Your task to perform on an android device: Go to wifi settings Image 0: 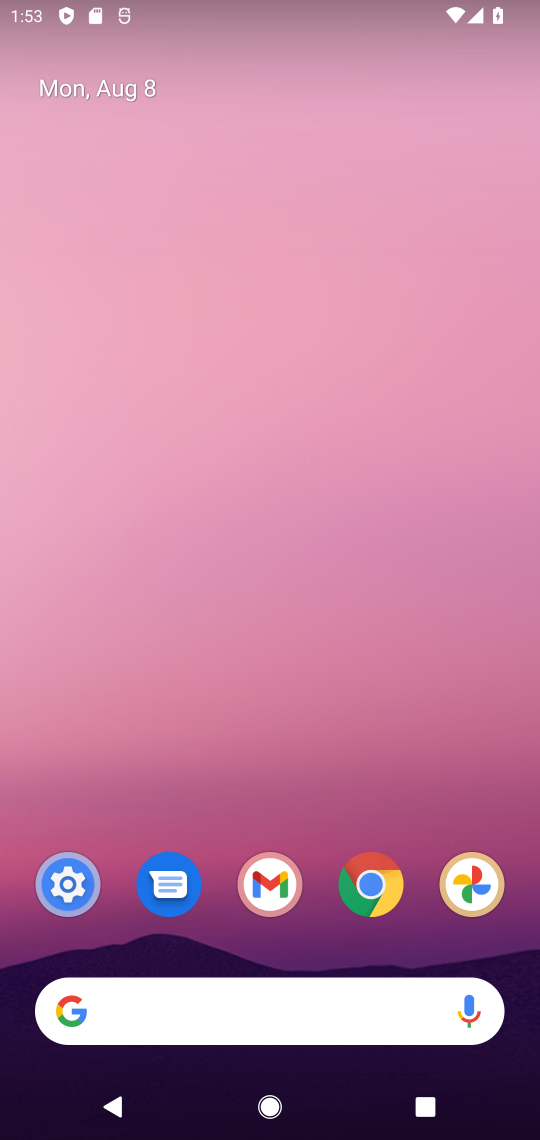
Step 0: click (69, 881)
Your task to perform on an android device: Go to wifi settings Image 1: 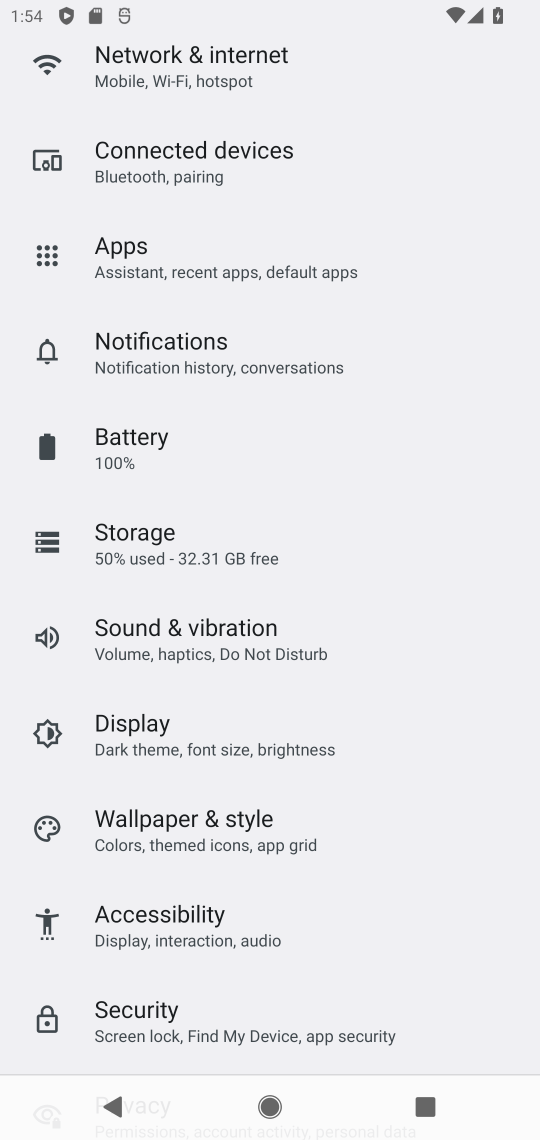
Step 1: drag from (351, 186) to (277, 499)
Your task to perform on an android device: Go to wifi settings Image 2: 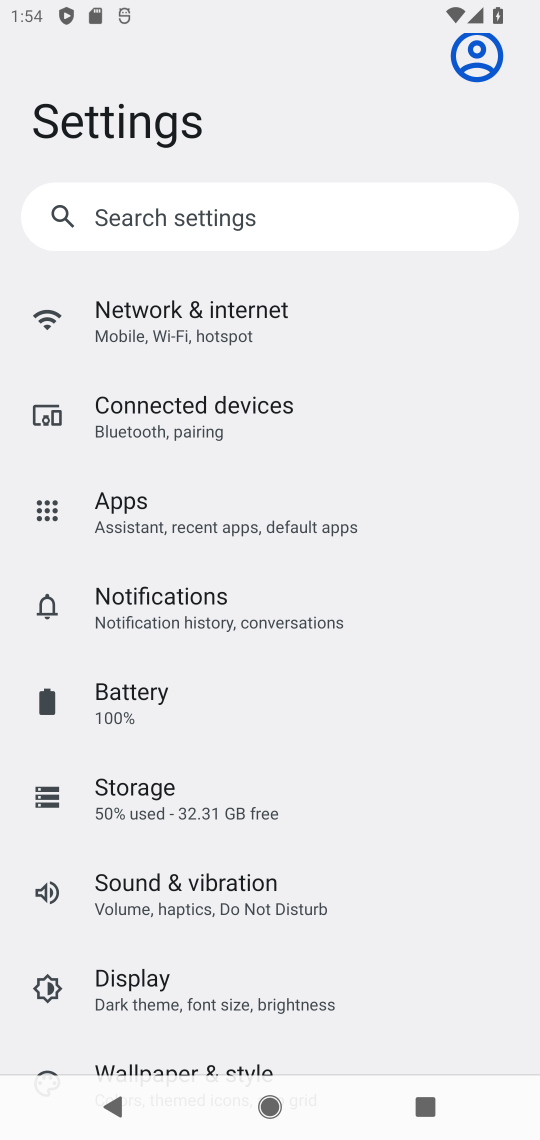
Step 2: click (159, 293)
Your task to perform on an android device: Go to wifi settings Image 3: 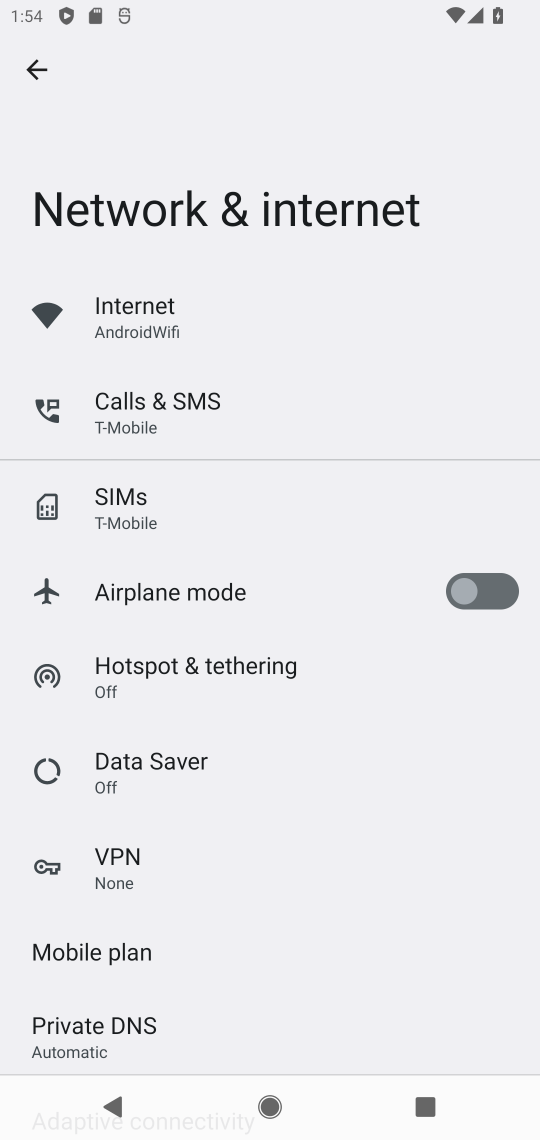
Step 3: click (138, 301)
Your task to perform on an android device: Go to wifi settings Image 4: 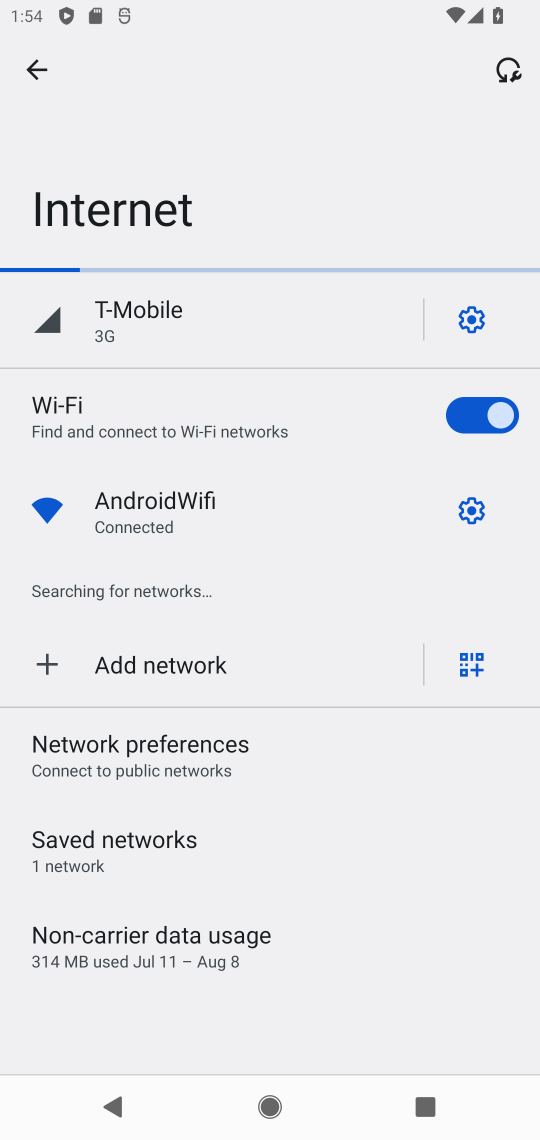
Step 4: task complete